Your task to perform on an android device: Open notification settings Image 0: 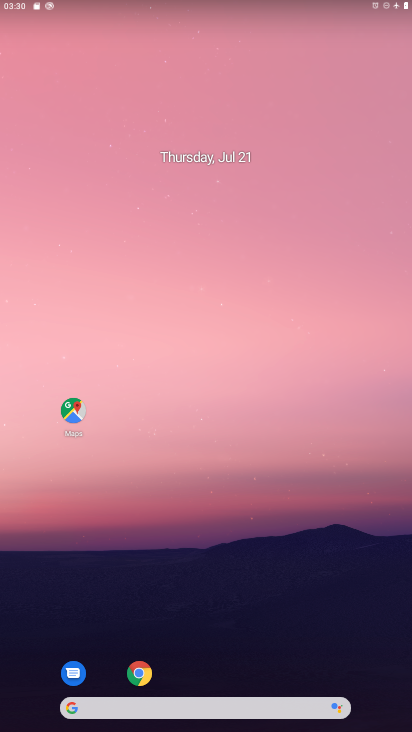
Step 0: drag from (268, 639) to (217, 60)
Your task to perform on an android device: Open notification settings Image 1: 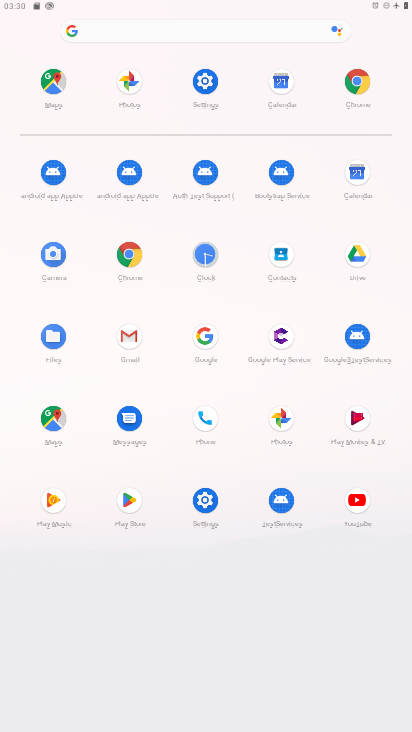
Step 1: click (198, 80)
Your task to perform on an android device: Open notification settings Image 2: 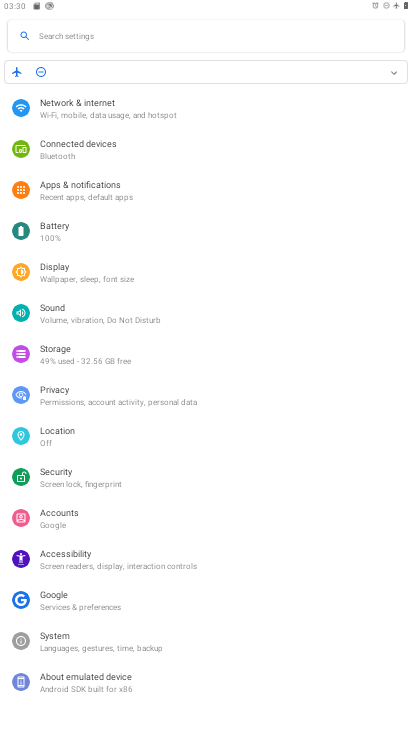
Step 2: click (95, 184)
Your task to perform on an android device: Open notification settings Image 3: 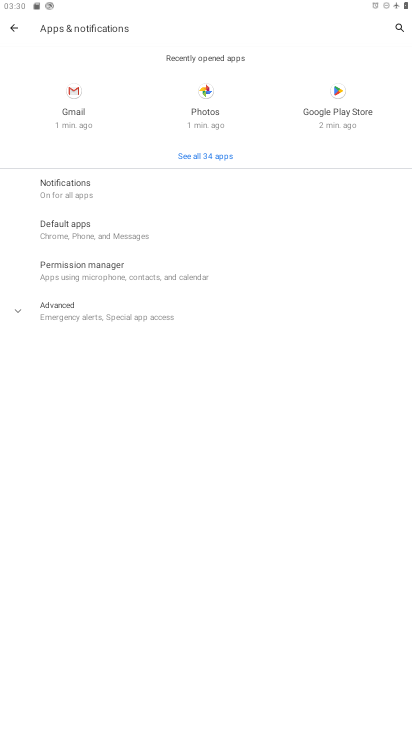
Step 3: click (90, 197)
Your task to perform on an android device: Open notification settings Image 4: 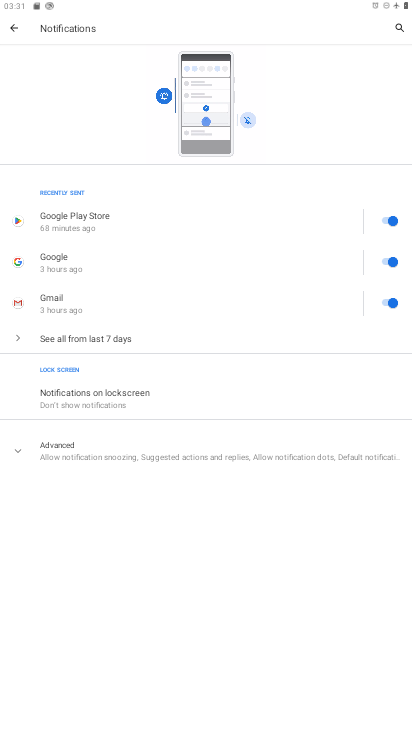
Step 4: task complete